Your task to perform on an android device: all mails in gmail Image 0: 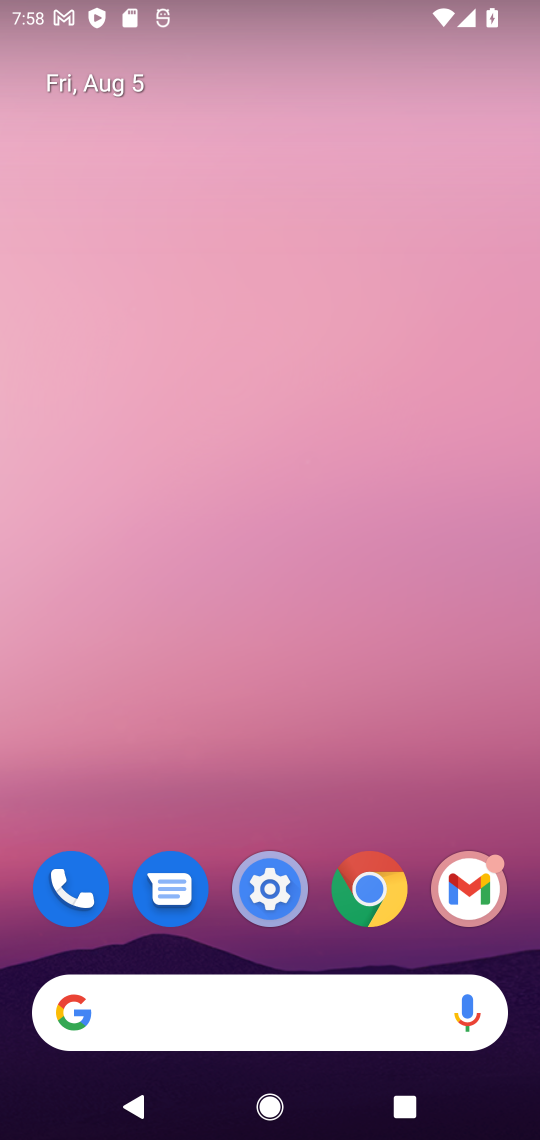
Step 0: drag from (325, 889) to (333, 194)
Your task to perform on an android device: all mails in gmail Image 1: 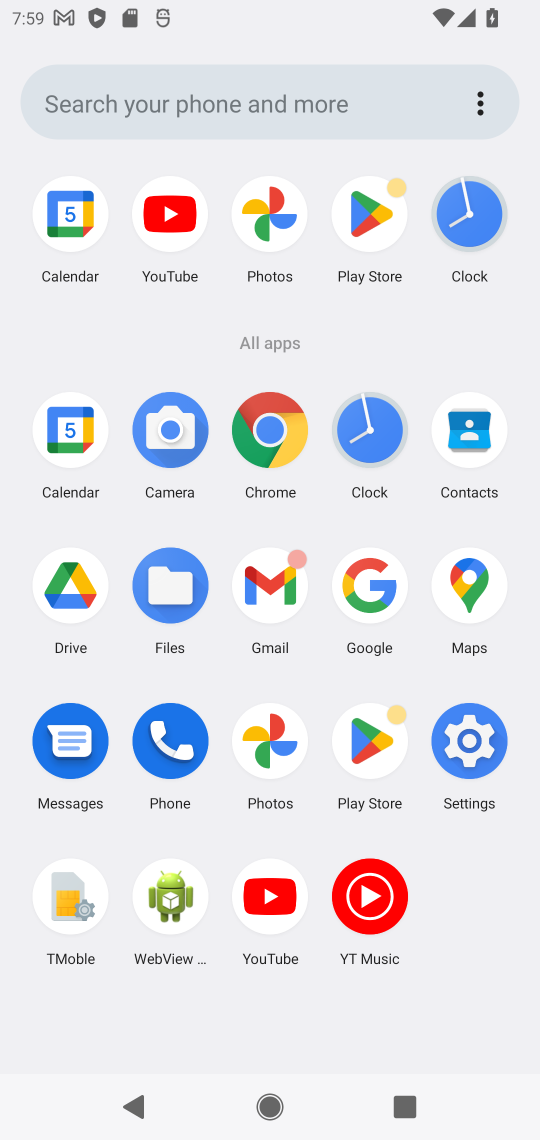
Step 1: click (285, 581)
Your task to perform on an android device: all mails in gmail Image 2: 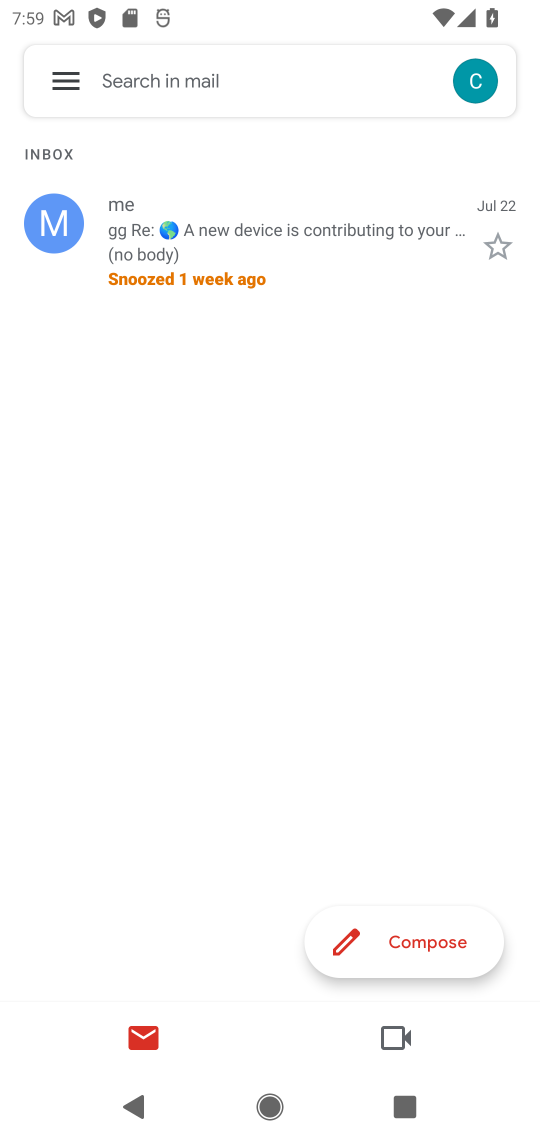
Step 2: click (49, 65)
Your task to perform on an android device: all mails in gmail Image 3: 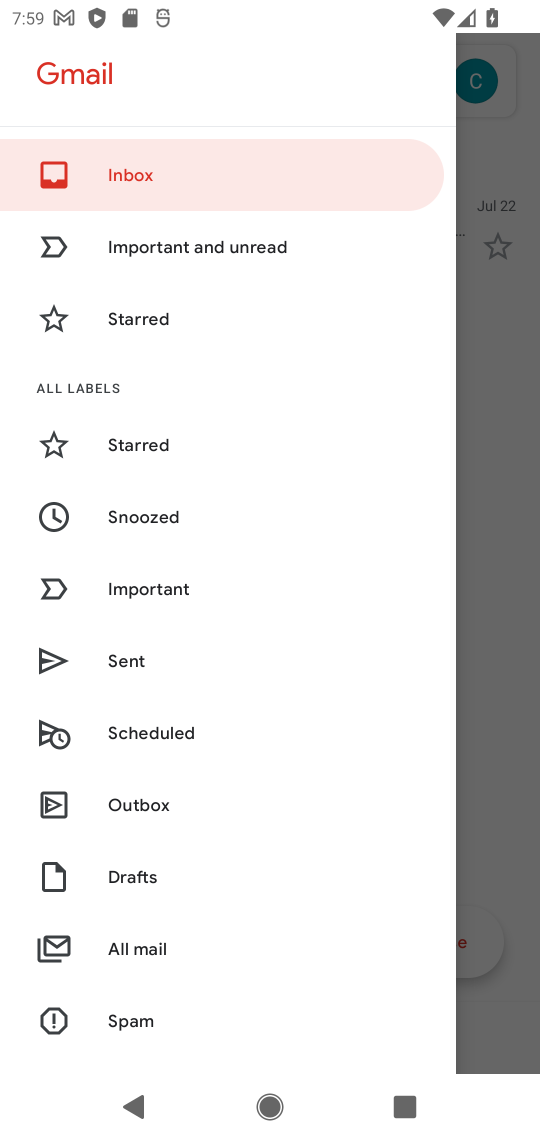
Step 3: click (192, 952)
Your task to perform on an android device: all mails in gmail Image 4: 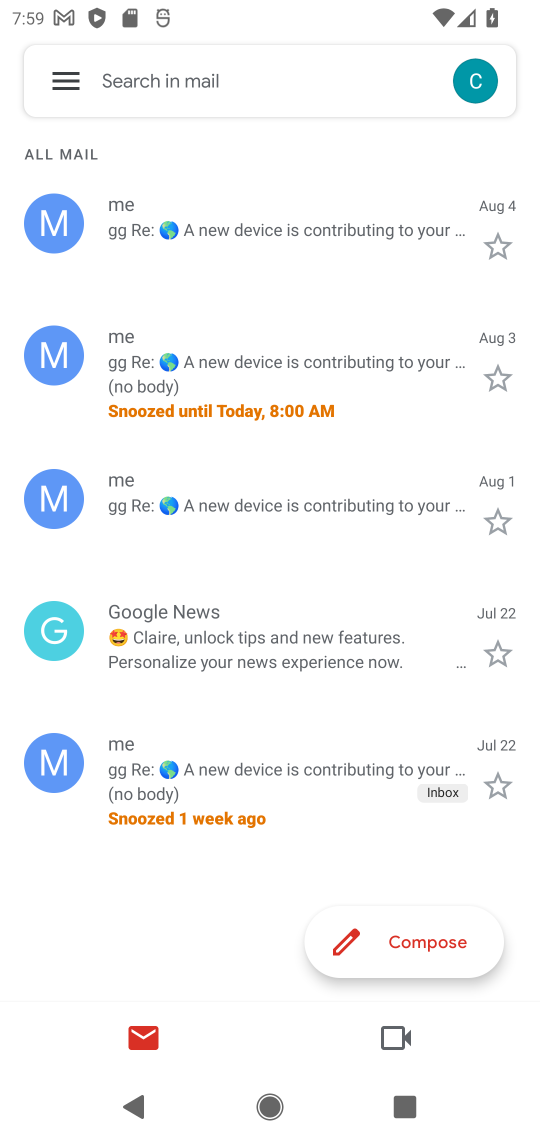
Step 4: task complete